Your task to perform on an android device: open device folders in google photos Image 0: 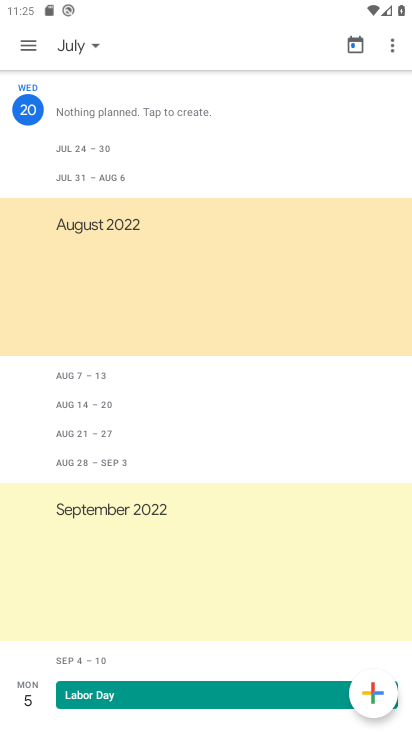
Step 0: drag from (239, 588) to (341, 362)
Your task to perform on an android device: open device folders in google photos Image 1: 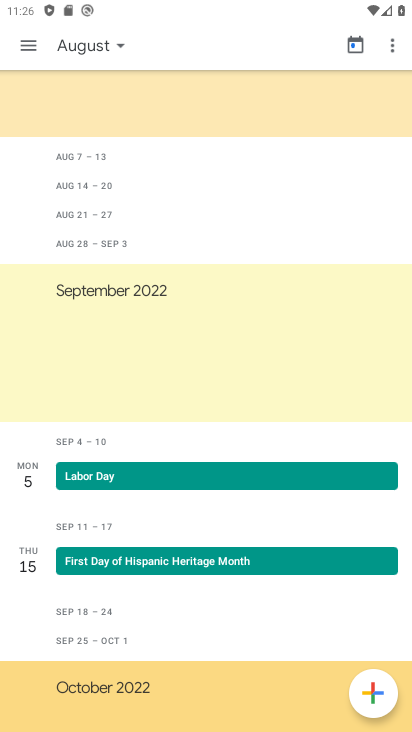
Step 1: drag from (187, 384) to (228, 173)
Your task to perform on an android device: open device folders in google photos Image 2: 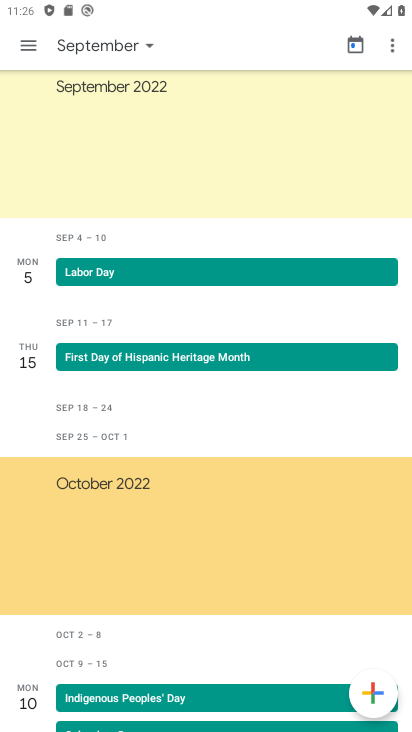
Step 2: drag from (216, 510) to (339, 239)
Your task to perform on an android device: open device folders in google photos Image 3: 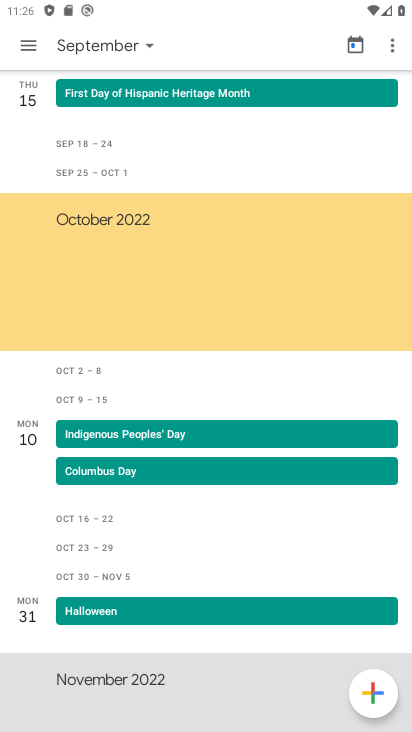
Step 3: press home button
Your task to perform on an android device: open device folders in google photos Image 4: 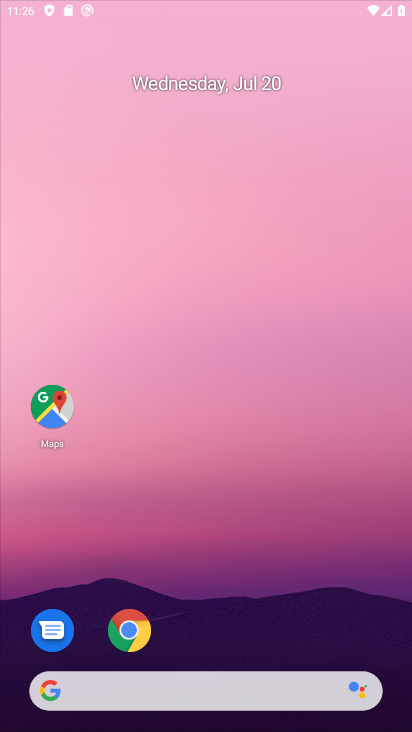
Step 4: drag from (256, 532) to (411, 127)
Your task to perform on an android device: open device folders in google photos Image 5: 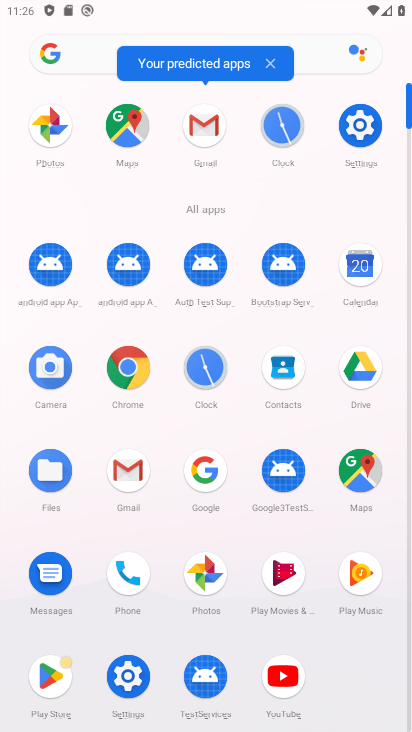
Step 5: drag from (166, 614) to (250, 281)
Your task to perform on an android device: open device folders in google photos Image 6: 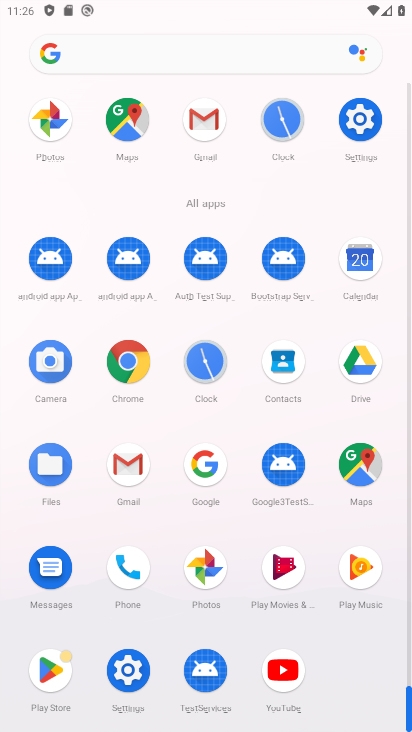
Step 6: click (197, 570)
Your task to perform on an android device: open device folders in google photos Image 7: 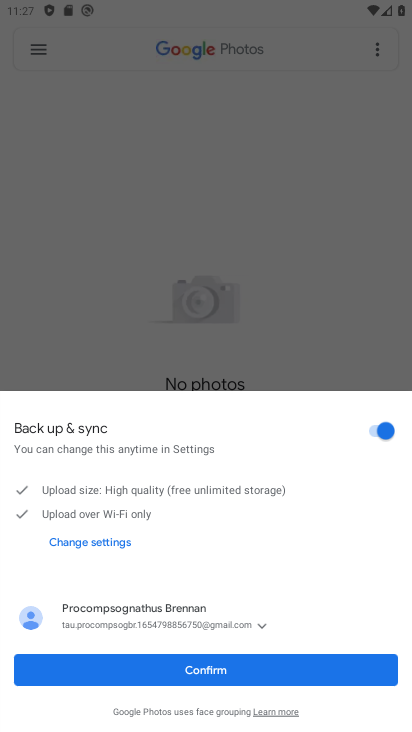
Step 7: click (176, 661)
Your task to perform on an android device: open device folders in google photos Image 8: 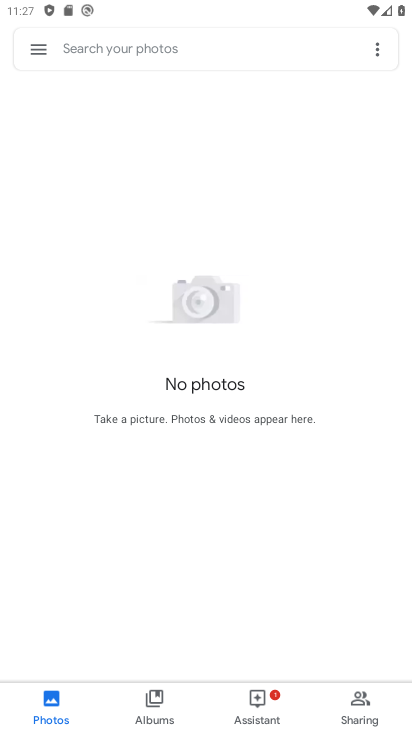
Step 8: click (31, 45)
Your task to perform on an android device: open device folders in google photos Image 9: 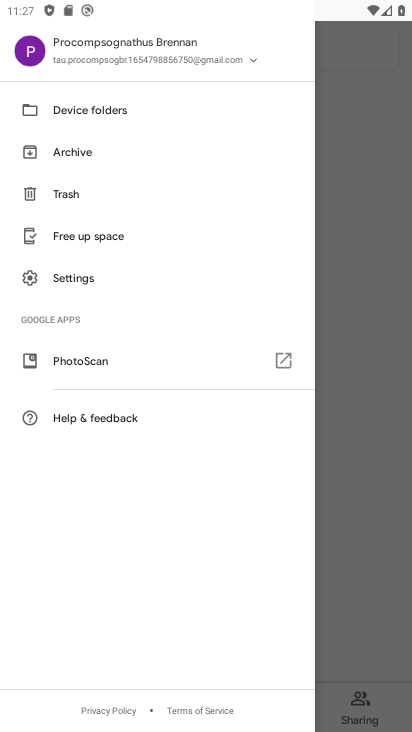
Step 9: click (77, 110)
Your task to perform on an android device: open device folders in google photos Image 10: 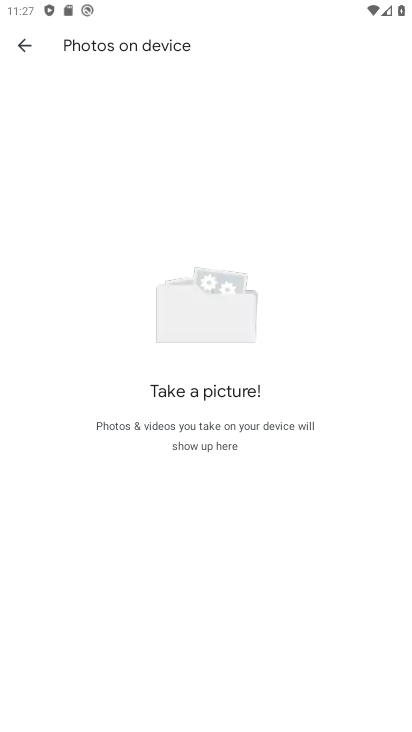
Step 10: task complete